Your task to perform on an android device: Go to Google maps Image 0: 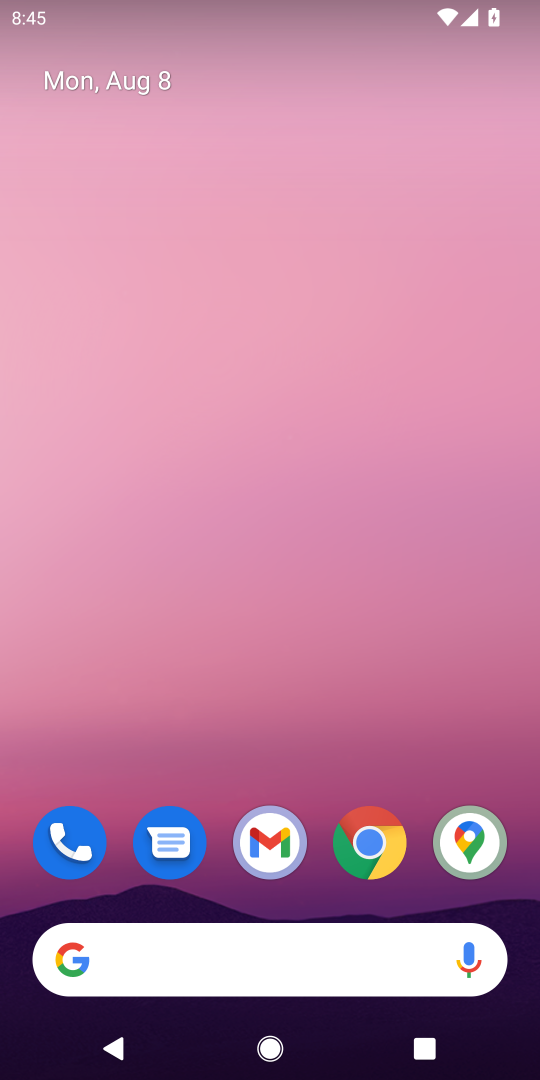
Step 0: click (460, 840)
Your task to perform on an android device: Go to Google maps Image 1: 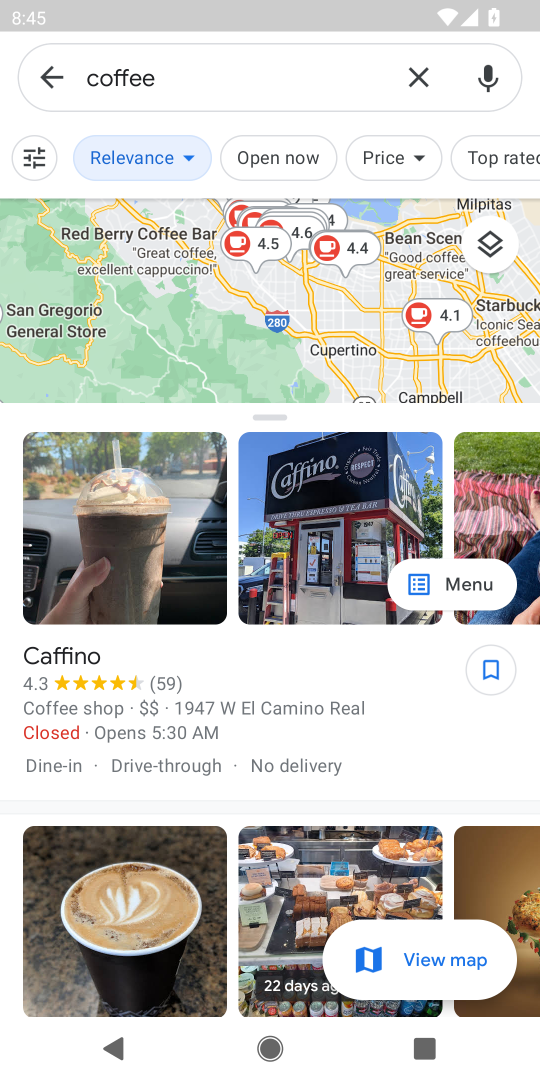
Step 1: task complete